Your task to perform on an android device: Set an alarm for 2pm Image 0: 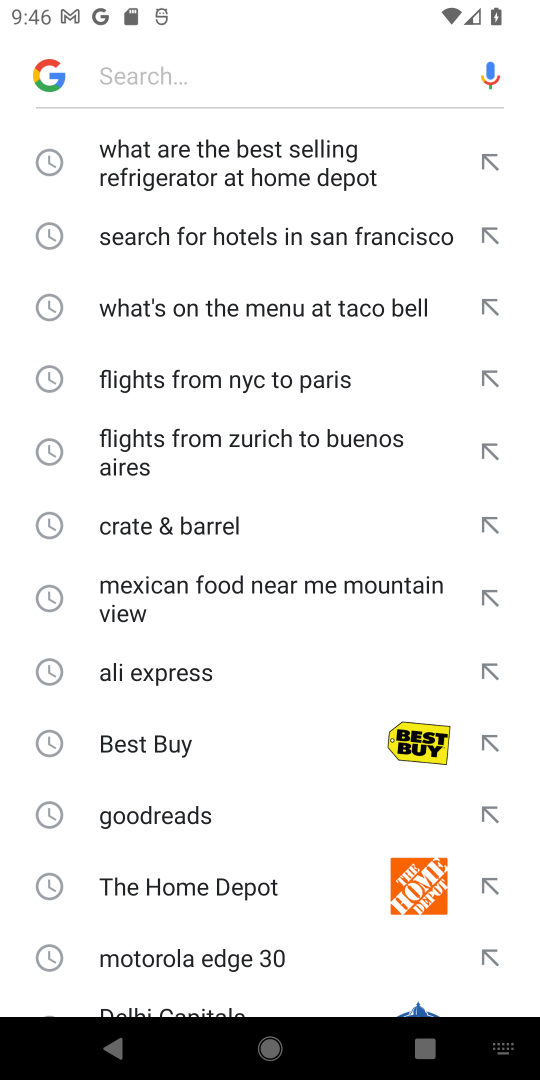
Step 0: click (110, 1056)
Your task to perform on an android device: Set an alarm for 2pm Image 1: 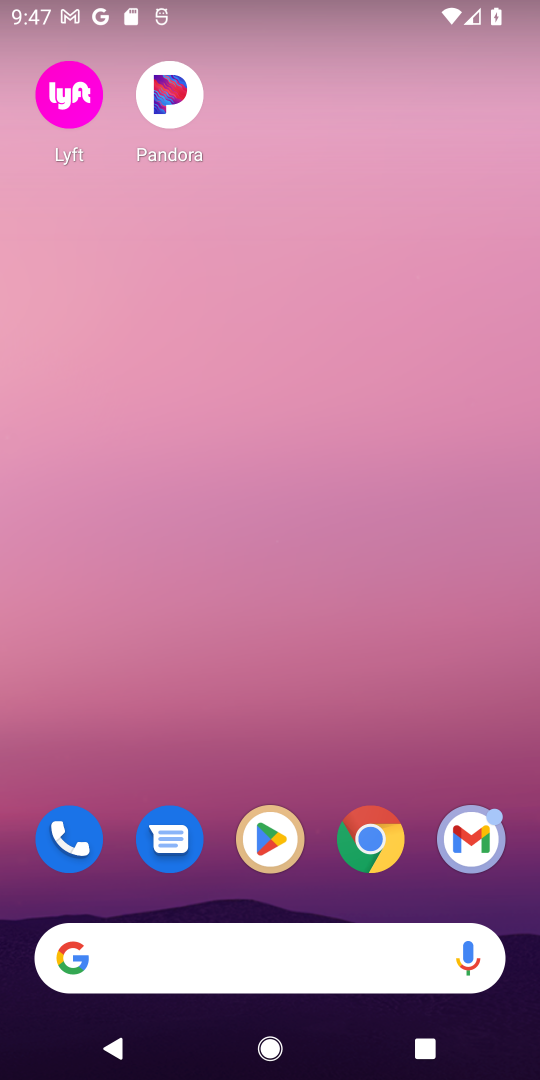
Step 1: drag from (232, 816) to (343, 151)
Your task to perform on an android device: Set an alarm for 2pm Image 2: 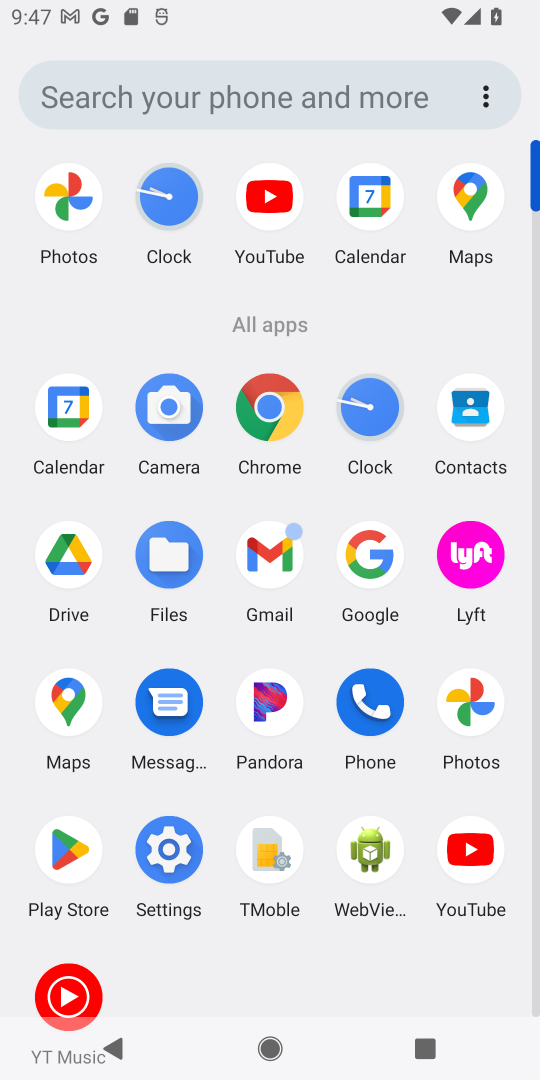
Step 2: click (381, 408)
Your task to perform on an android device: Set an alarm for 2pm Image 3: 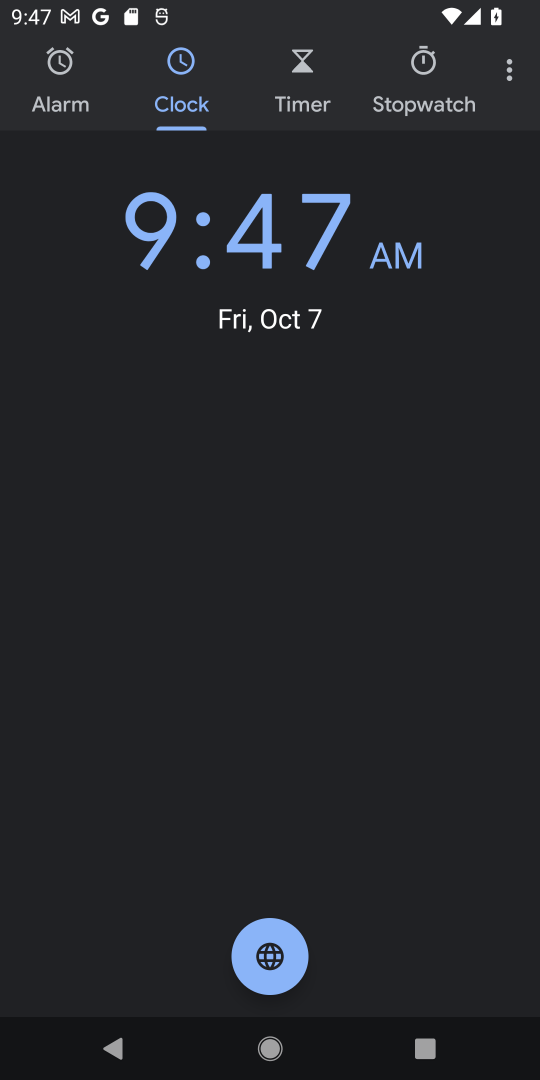
Step 3: click (71, 106)
Your task to perform on an android device: Set an alarm for 2pm Image 4: 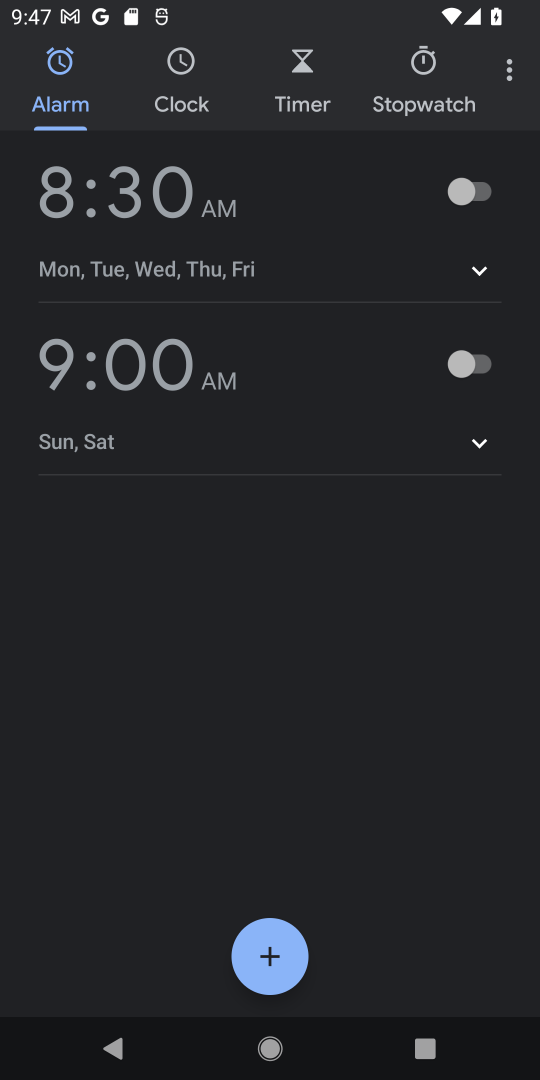
Step 4: click (491, 267)
Your task to perform on an android device: Set an alarm for 2pm Image 5: 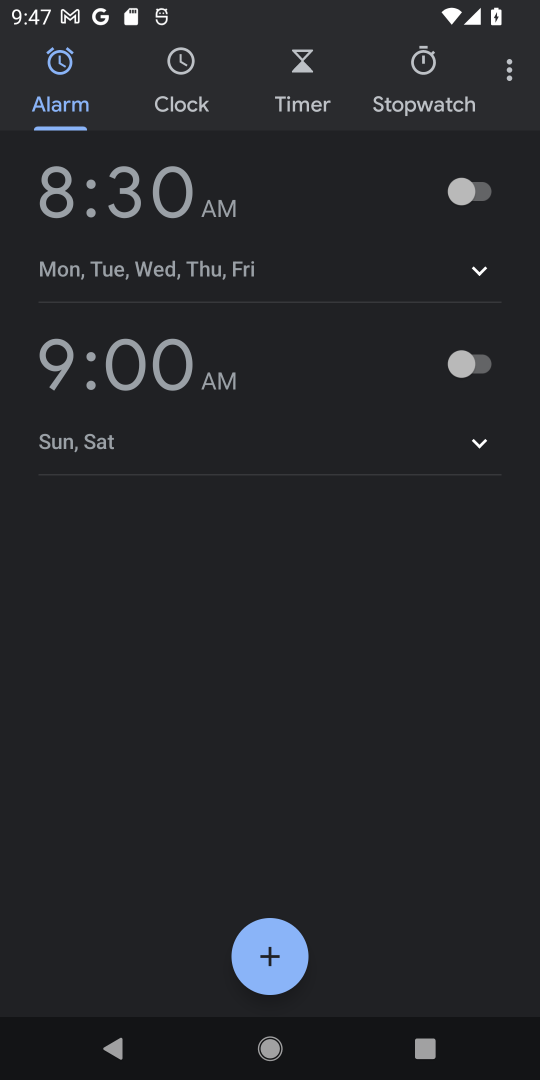
Step 5: click (478, 268)
Your task to perform on an android device: Set an alarm for 2pm Image 6: 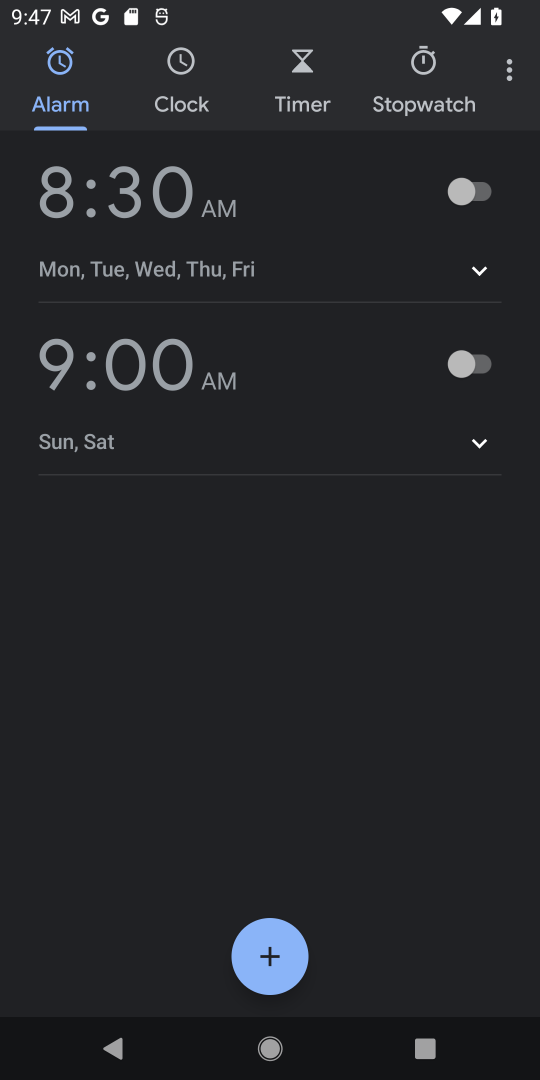
Step 6: click (482, 448)
Your task to perform on an android device: Set an alarm for 2pm Image 7: 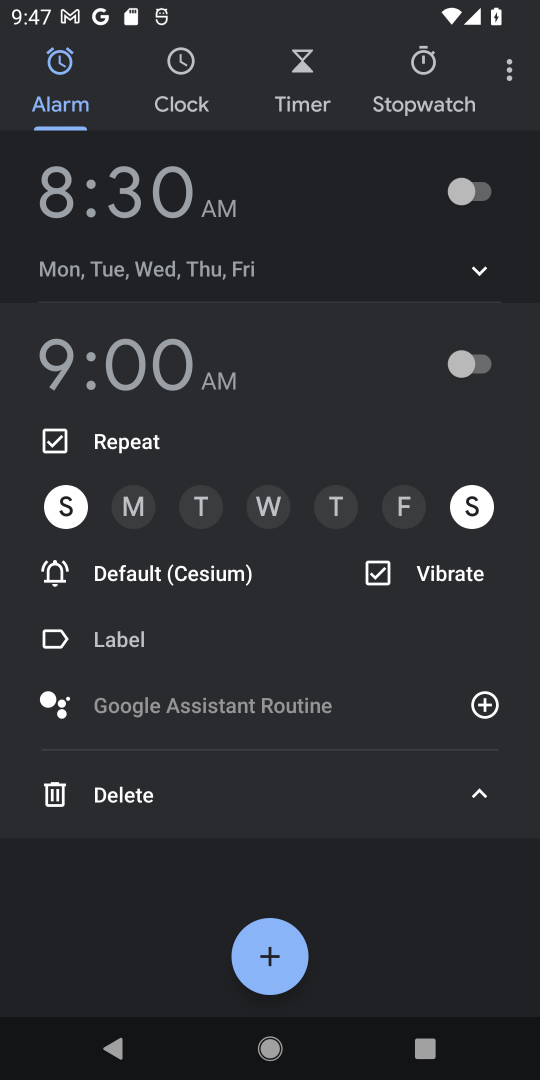
Step 7: click (147, 507)
Your task to perform on an android device: Set an alarm for 2pm Image 8: 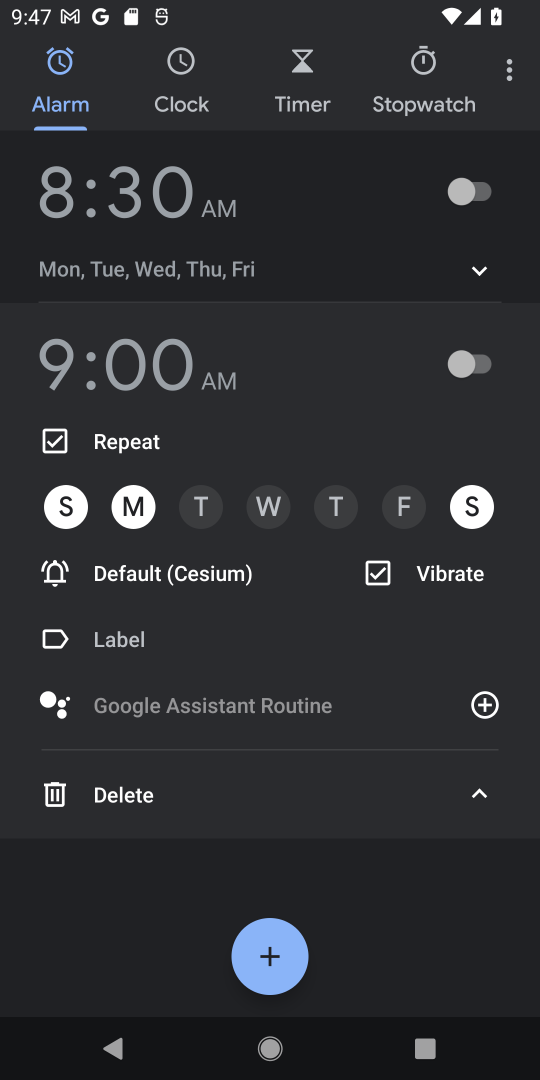
Step 8: click (236, 214)
Your task to perform on an android device: Set an alarm for 2pm Image 9: 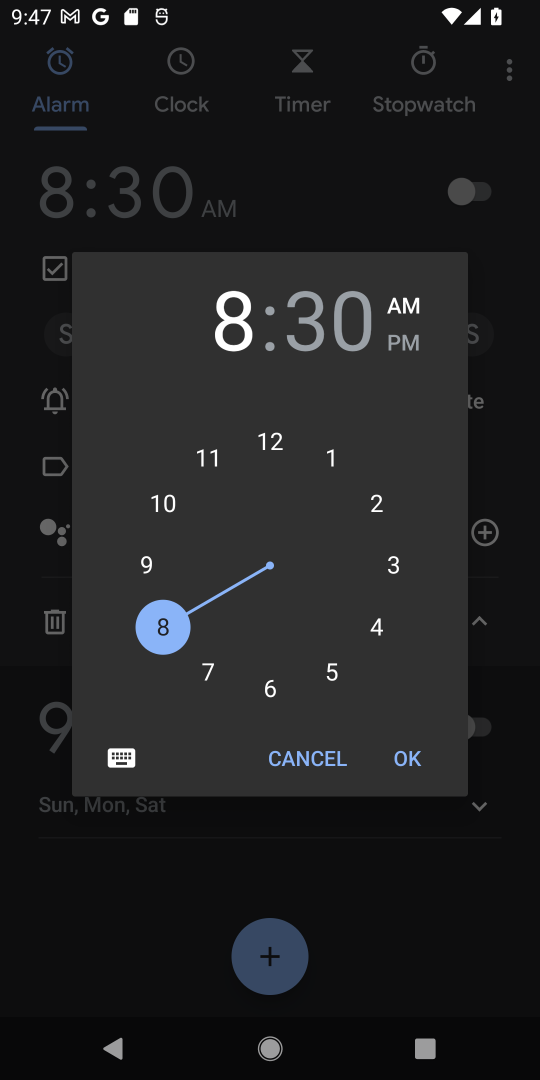
Step 9: click (383, 511)
Your task to perform on an android device: Set an alarm for 2pm Image 10: 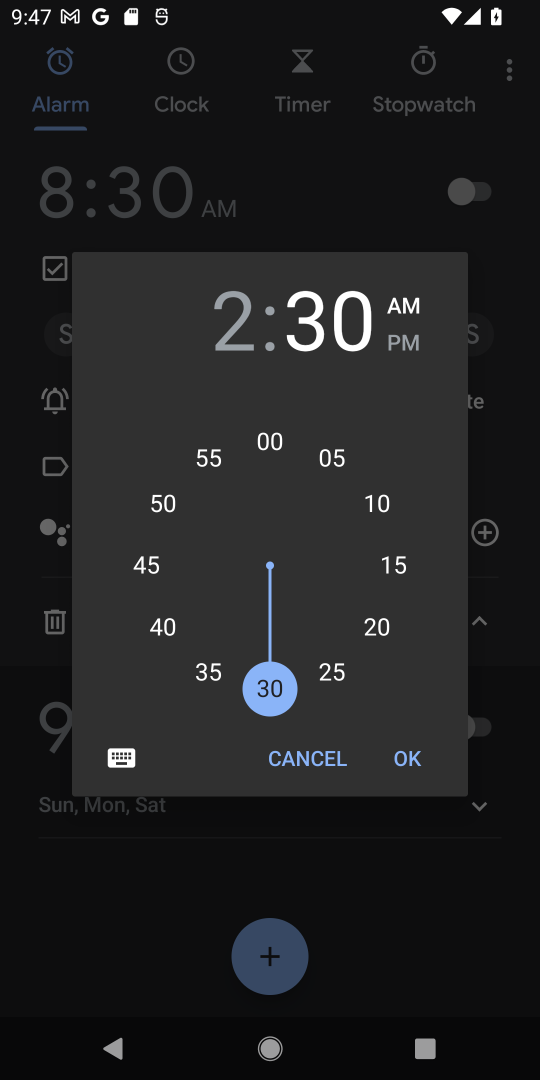
Step 10: click (277, 440)
Your task to perform on an android device: Set an alarm for 2pm Image 11: 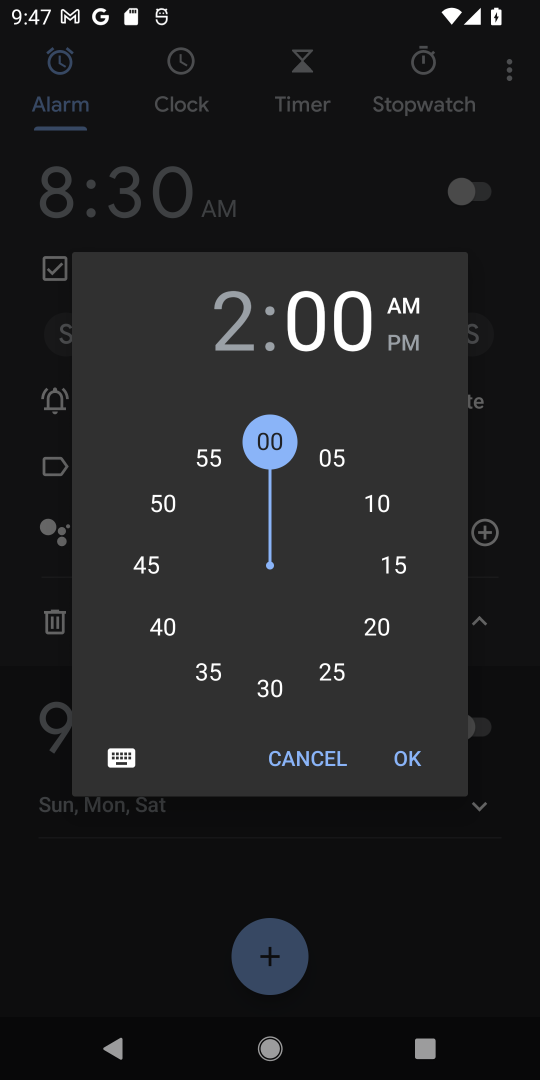
Step 11: click (414, 767)
Your task to perform on an android device: Set an alarm for 2pm Image 12: 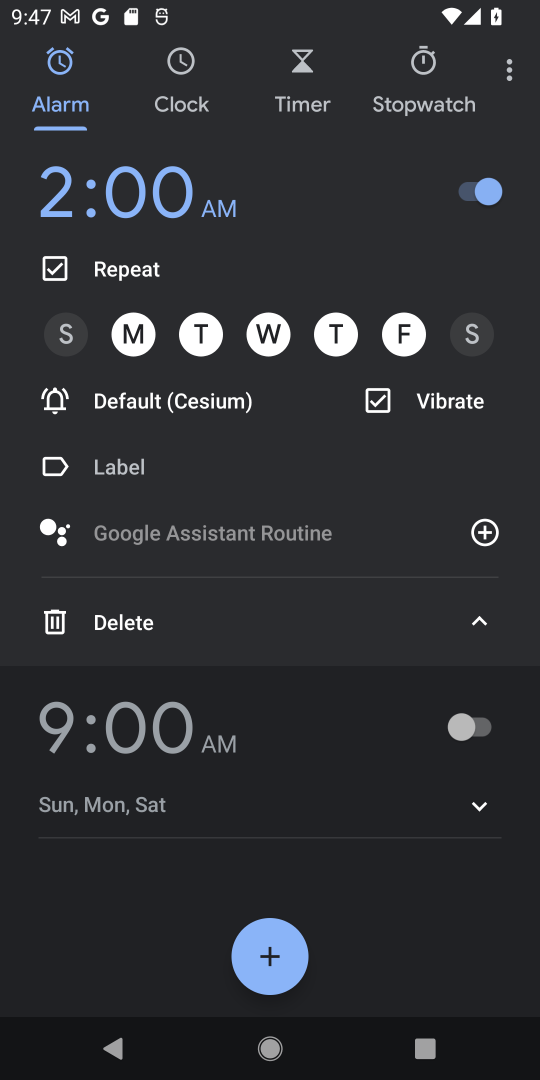
Step 12: task complete